Your task to perform on an android device: turn off wifi Image 0: 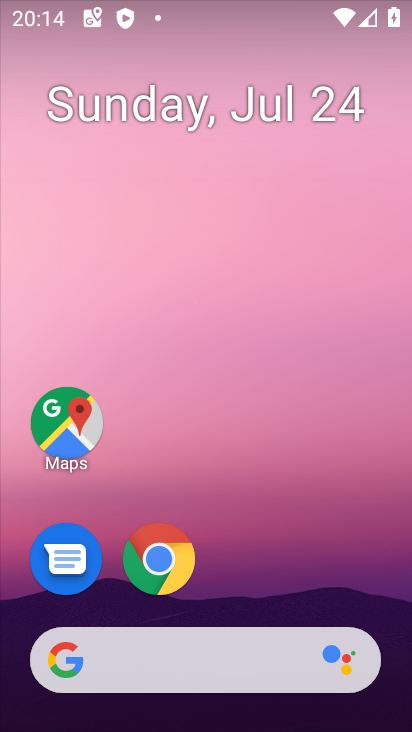
Step 0: press home button
Your task to perform on an android device: turn off wifi Image 1: 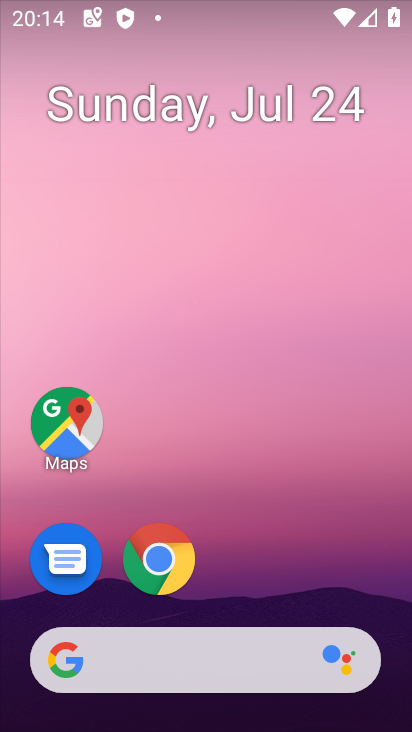
Step 1: drag from (369, 578) to (368, 38)
Your task to perform on an android device: turn off wifi Image 2: 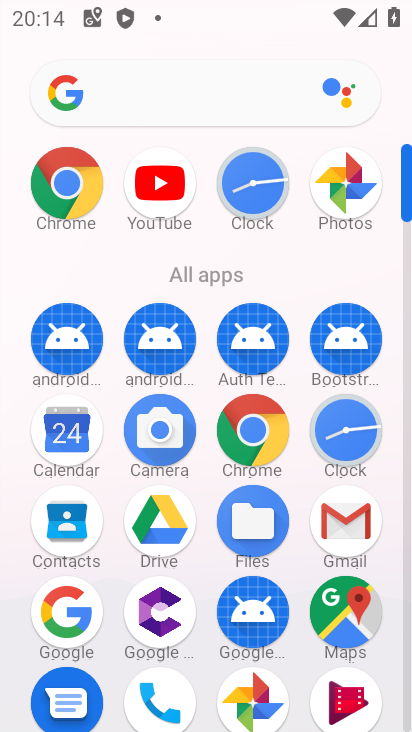
Step 2: drag from (390, 486) to (393, 241)
Your task to perform on an android device: turn off wifi Image 3: 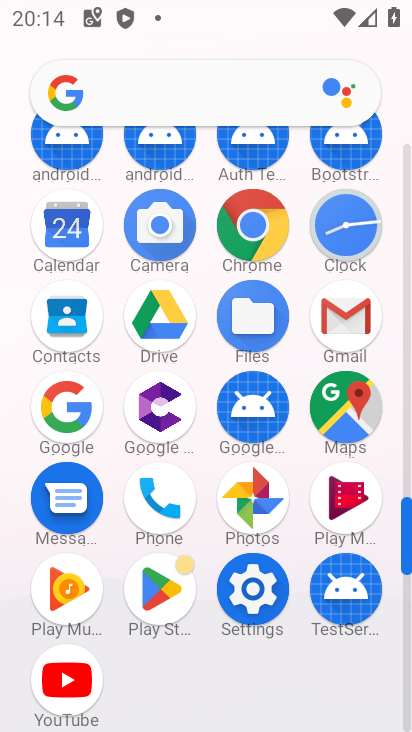
Step 3: click (252, 604)
Your task to perform on an android device: turn off wifi Image 4: 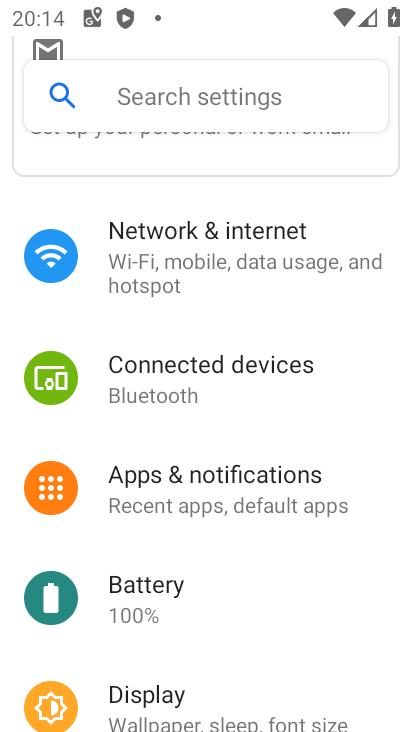
Step 4: drag from (382, 359) to (379, 564)
Your task to perform on an android device: turn off wifi Image 5: 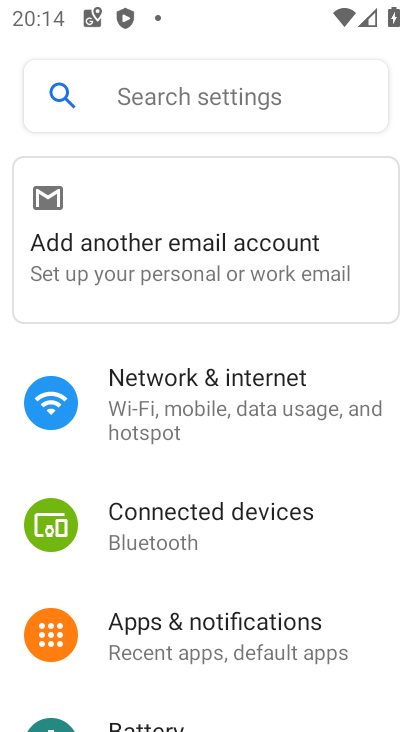
Step 5: click (327, 412)
Your task to perform on an android device: turn off wifi Image 6: 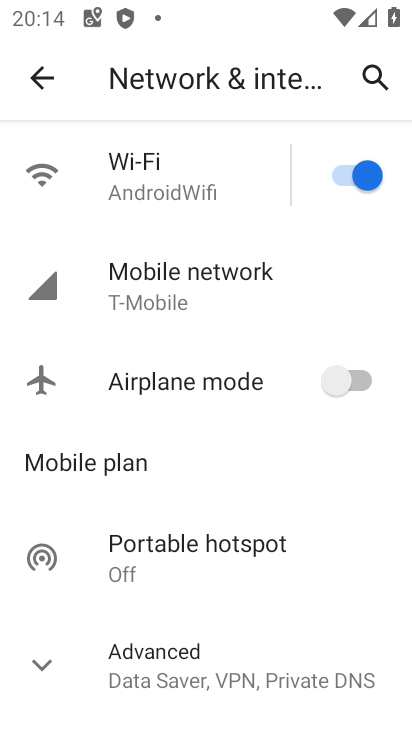
Step 6: click (366, 177)
Your task to perform on an android device: turn off wifi Image 7: 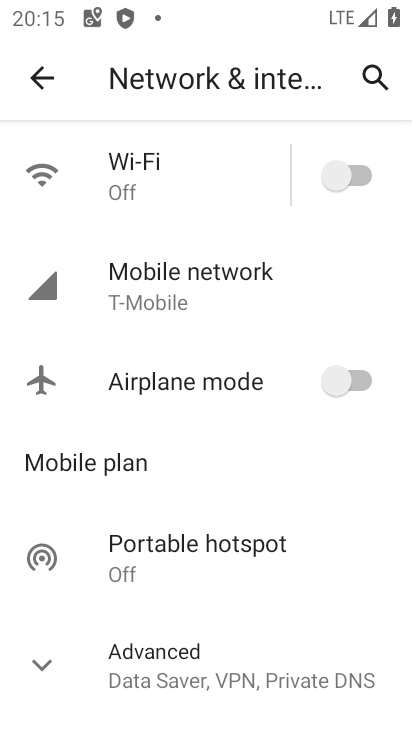
Step 7: task complete